Your task to perform on an android device: choose inbox layout in the gmail app Image 0: 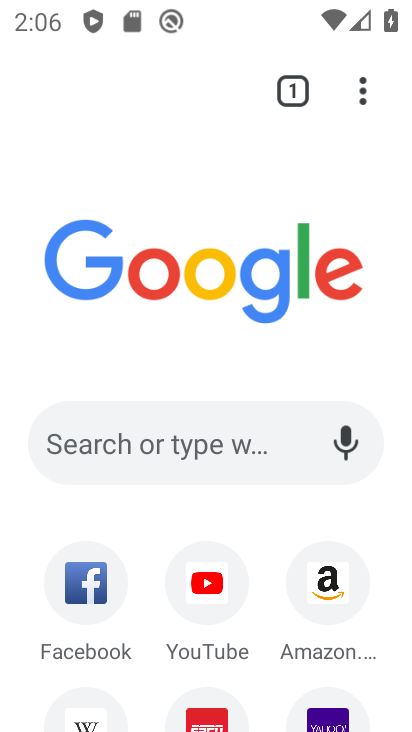
Step 0: press home button
Your task to perform on an android device: choose inbox layout in the gmail app Image 1: 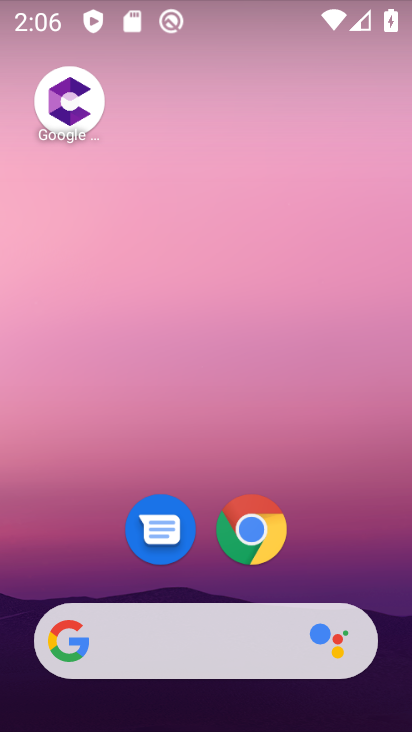
Step 1: drag from (130, 649) to (256, 149)
Your task to perform on an android device: choose inbox layout in the gmail app Image 2: 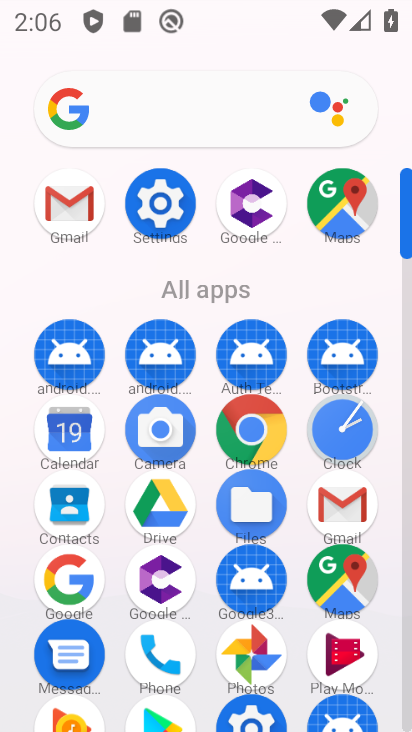
Step 2: click (66, 207)
Your task to perform on an android device: choose inbox layout in the gmail app Image 3: 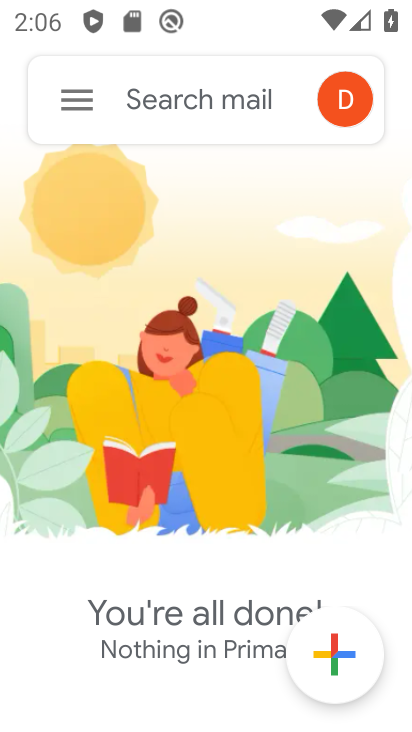
Step 3: click (84, 106)
Your task to perform on an android device: choose inbox layout in the gmail app Image 4: 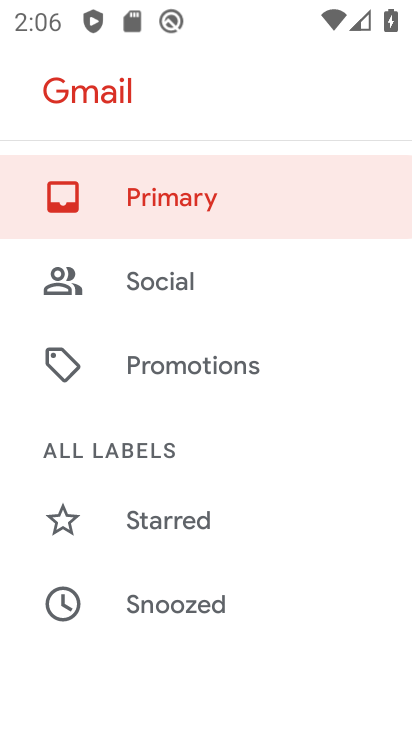
Step 4: drag from (262, 582) to (344, 126)
Your task to perform on an android device: choose inbox layout in the gmail app Image 5: 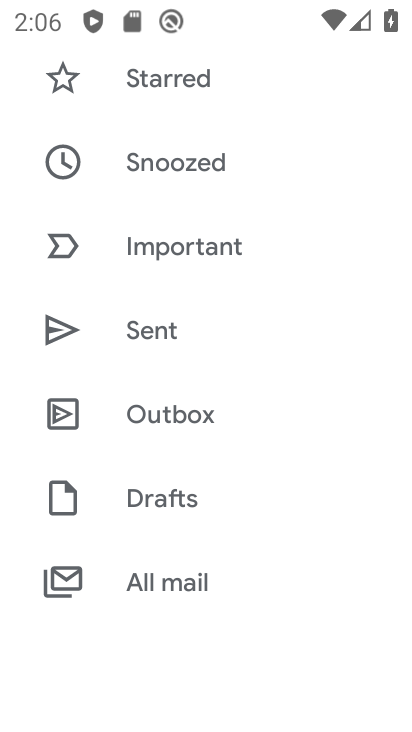
Step 5: drag from (233, 630) to (305, 129)
Your task to perform on an android device: choose inbox layout in the gmail app Image 6: 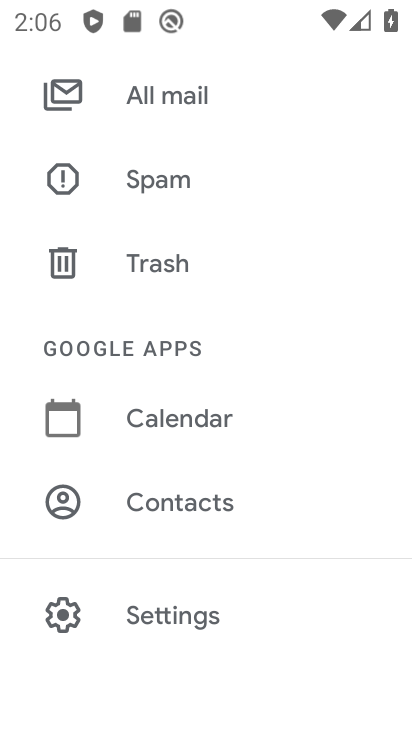
Step 6: drag from (217, 579) to (300, 232)
Your task to perform on an android device: choose inbox layout in the gmail app Image 7: 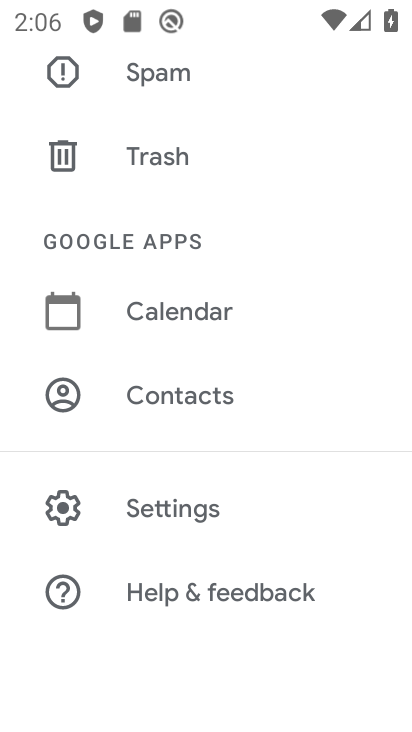
Step 7: click (173, 500)
Your task to perform on an android device: choose inbox layout in the gmail app Image 8: 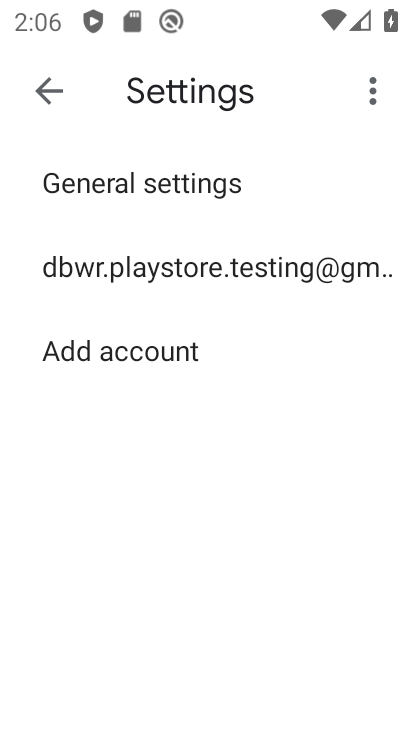
Step 8: click (225, 273)
Your task to perform on an android device: choose inbox layout in the gmail app Image 9: 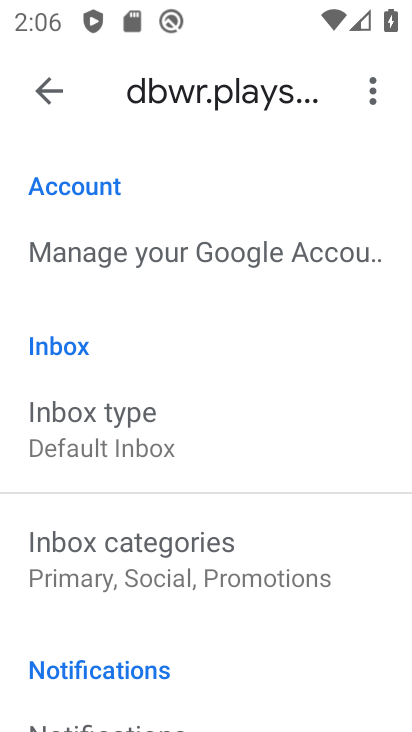
Step 9: click (114, 432)
Your task to perform on an android device: choose inbox layout in the gmail app Image 10: 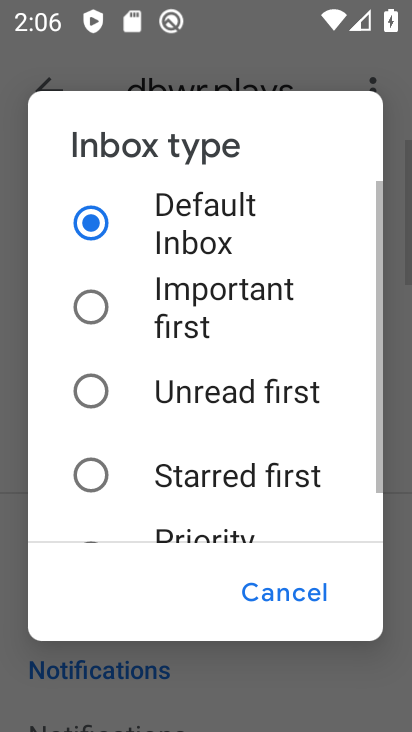
Step 10: click (93, 400)
Your task to perform on an android device: choose inbox layout in the gmail app Image 11: 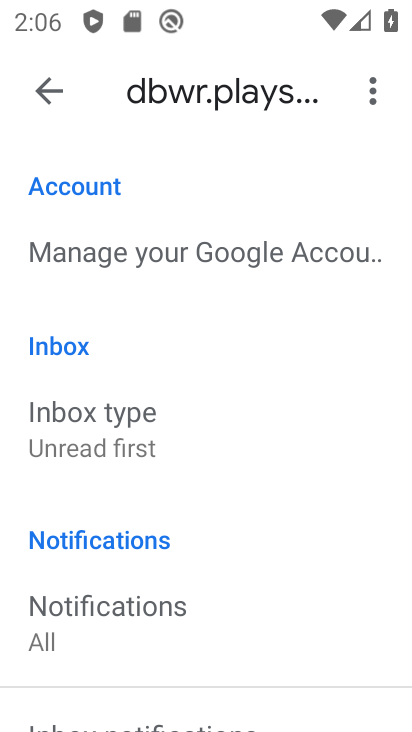
Step 11: task complete